Your task to perform on an android device: Go to internet settings Image 0: 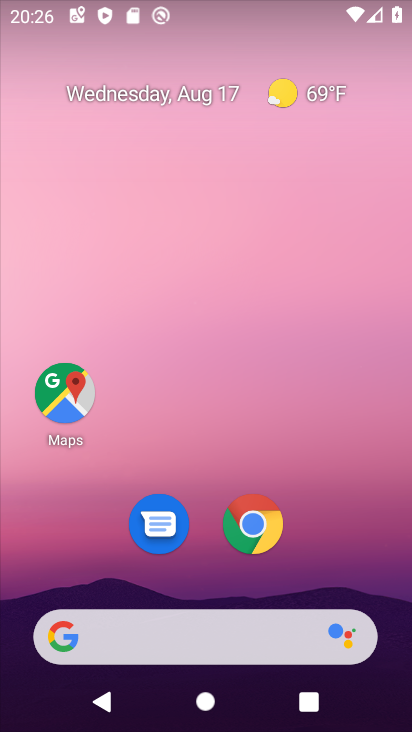
Step 0: drag from (304, 549) to (338, 56)
Your task to perform on an android device: Go to internet settings Image 1: 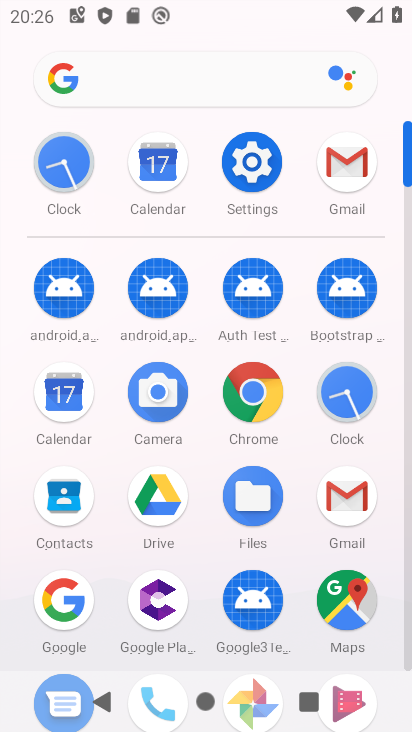
Step 1: click (255, 161)
Your task to perform on an android device: Go to internet settings Image 2: 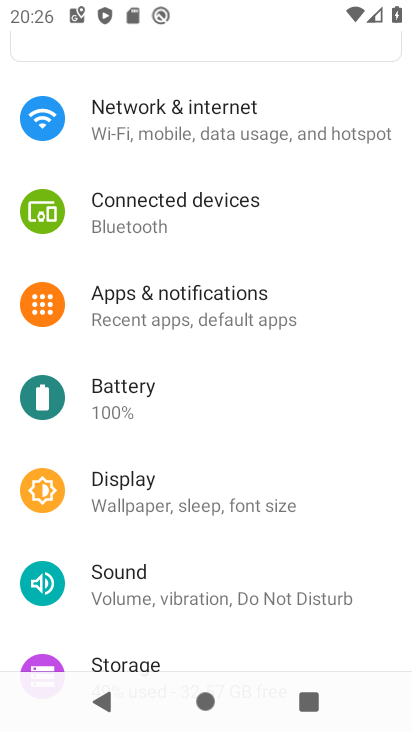
Step 2: drag from (270, 264) to (285, 557)
Your task to perform on an android device: Go to internet settings Image 3: 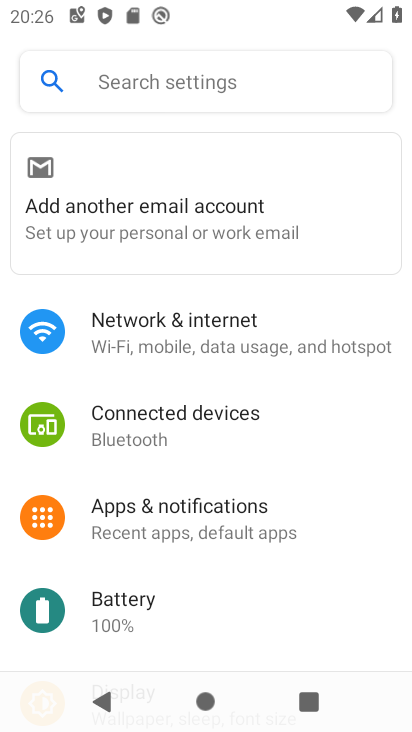
Step 3: click (272, 344)
Your task to perform on an android device: Go to internet settings Image 4: 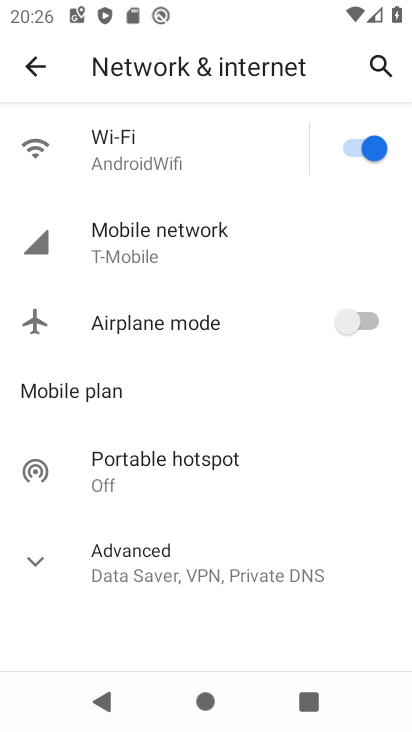
Step 4: task complete